Your task to perform on an android device: Open CNN.com Image 0: 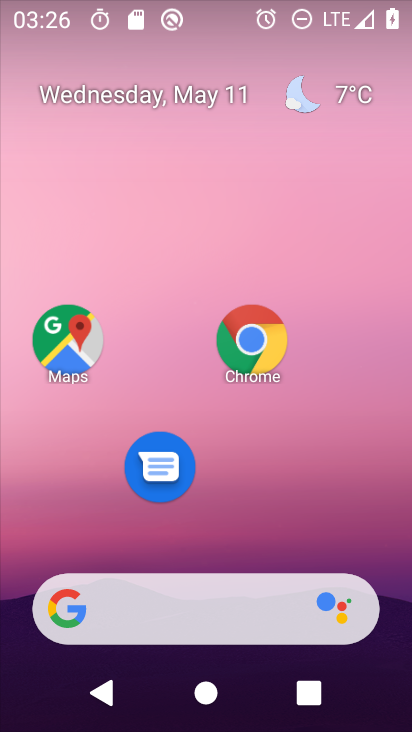
Step 0: drag from (166, 605) to (341, 31)
Your task to perform on an android device: Open CNN.com Image 1: 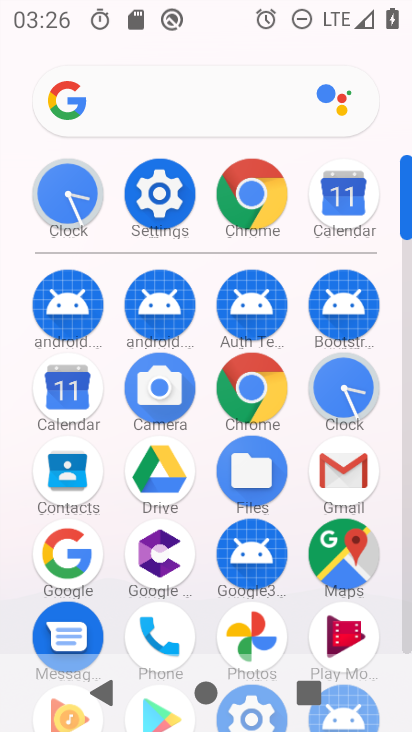
Step 1: click (252, 188)
Your task to perform on an android device: Open CNN.com Image 2: 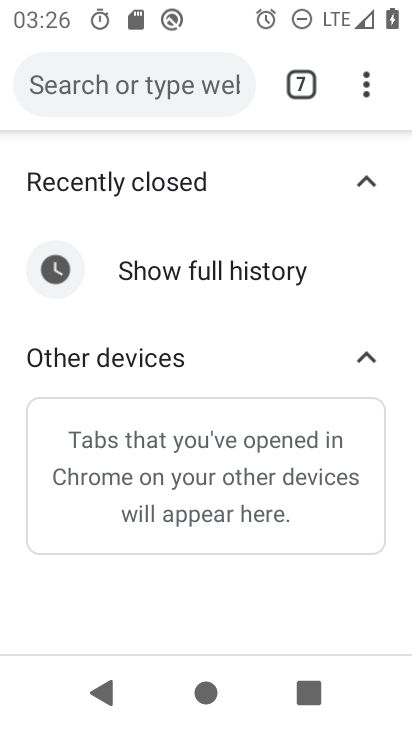
Step 2: drag from (367, 94) to (261, 173)
Your task to perform on an android device: Open CNN.com Image 3: 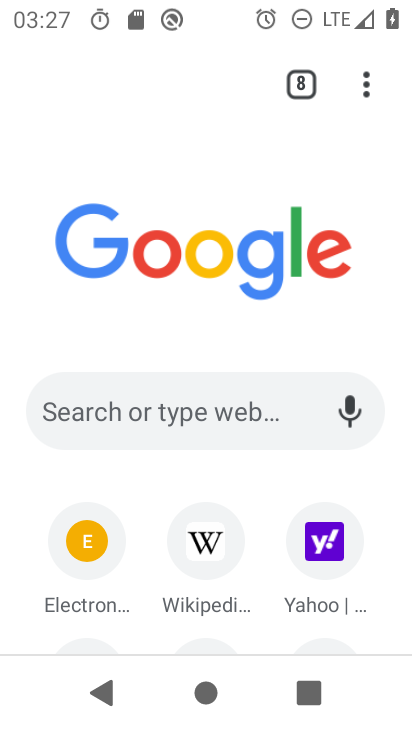
Step 3: click (221, 398)
Your task to perform on an android device: Open CNN.com Image 4: 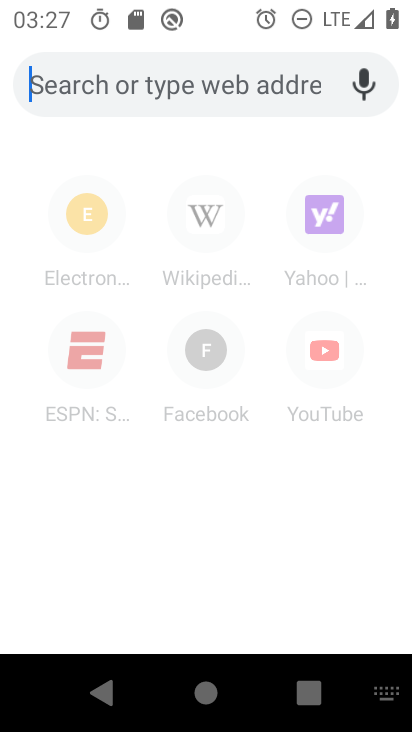
Step 4: type "cnn.com"
Your task to perform on an android device: Open CNN.com Image 5: 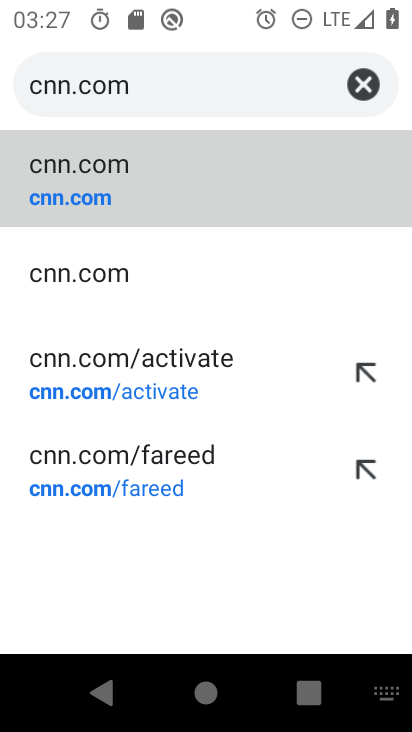
Step 5: click (163, 195)
Your task to perform on an android device: Open CNN.com Image 6: 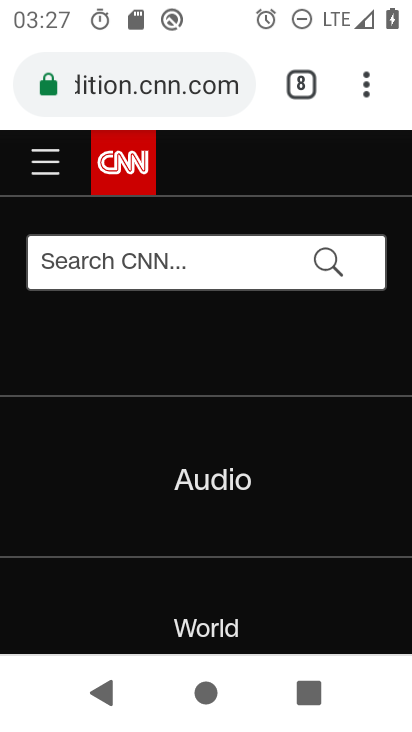
Step 6: task complete